Your task to perform on an android device: change the clock display to show seconds Image 0: 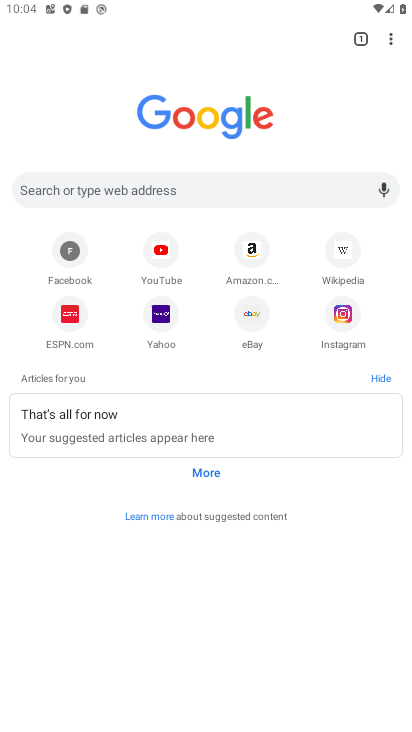
Step 0: press back button
Your task to perform on an android device: change the clock display to show seconds Image 1: 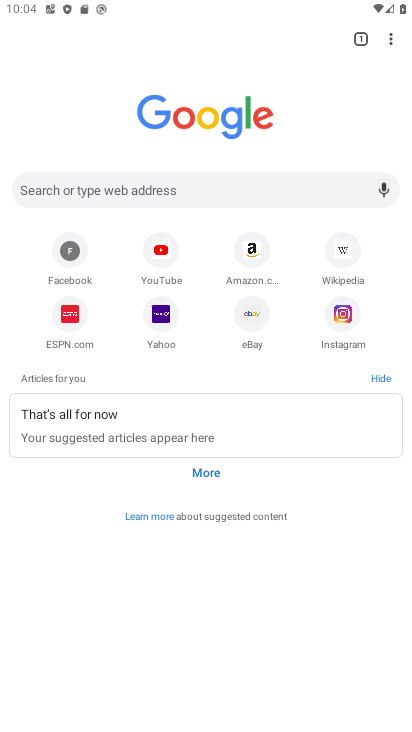
Step 1: press back button
Your task to perform on an android device: change the clock display to show seconds Image 2: 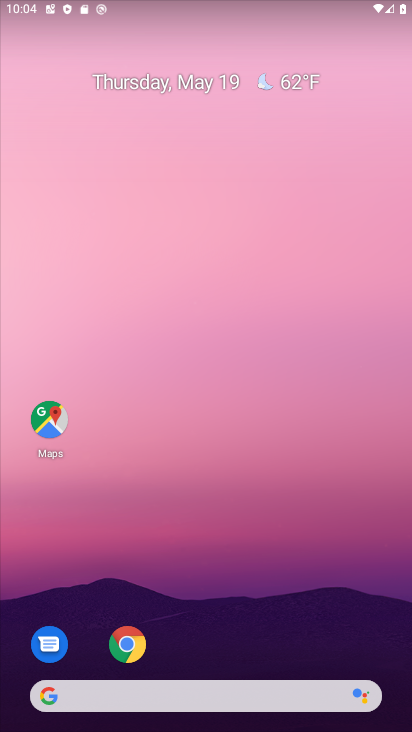
Step 2: drag from (238, 531) to (102, 194)
Your task to perform on an android device: change the clock display to show seconds Image 3: 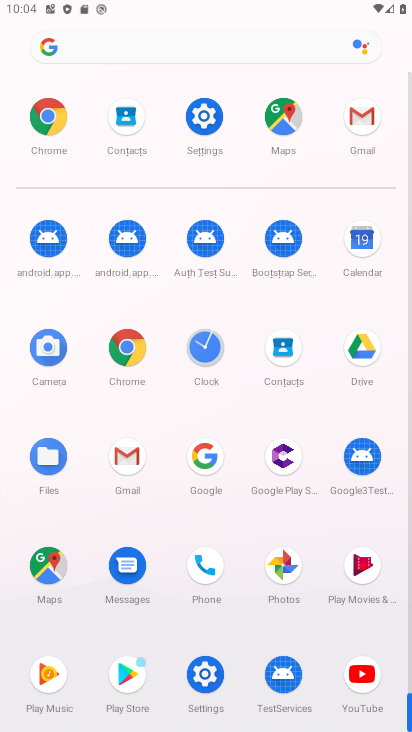
Step 3: click (207, 347)
Your task to perform on an android device: change the clock display to show seconds Image 4: 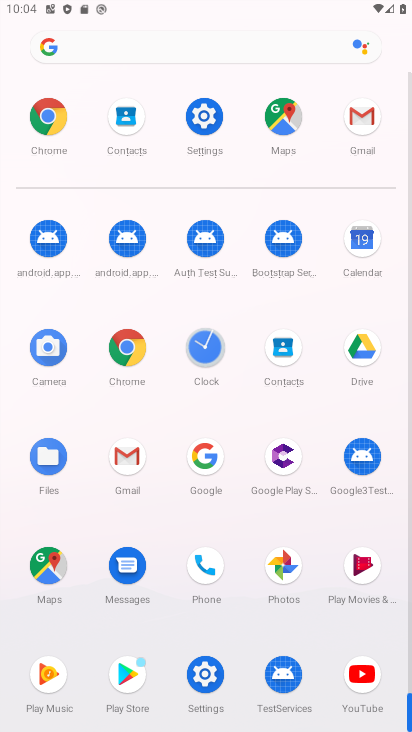
Step 4: click (207, 347)
Your task to perform on an android device: change the clock display to show seconds Image 5: 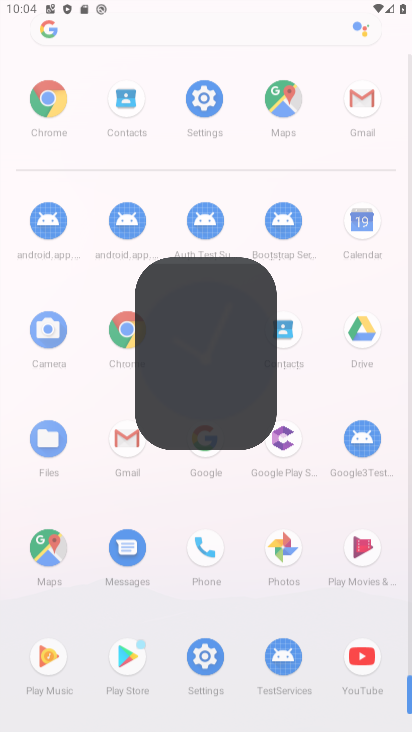
Step 5: click (207, 347)
Your task to perform on an android device: change the clock display to show seconds Image 6: 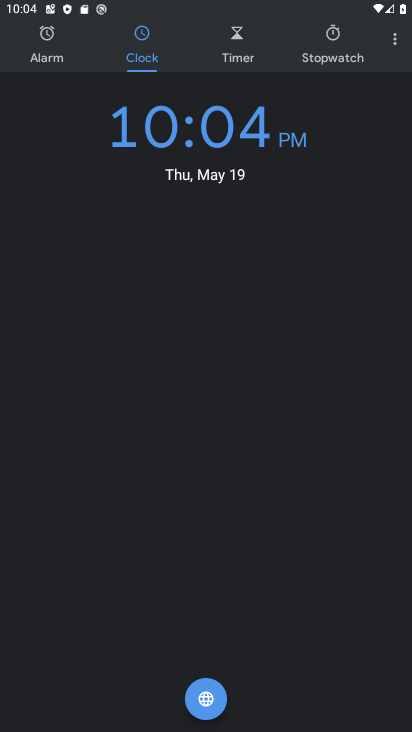
Step 6: click (398, 44)
Your task to perform on an android device: change the clock display to show seconds Image 7: 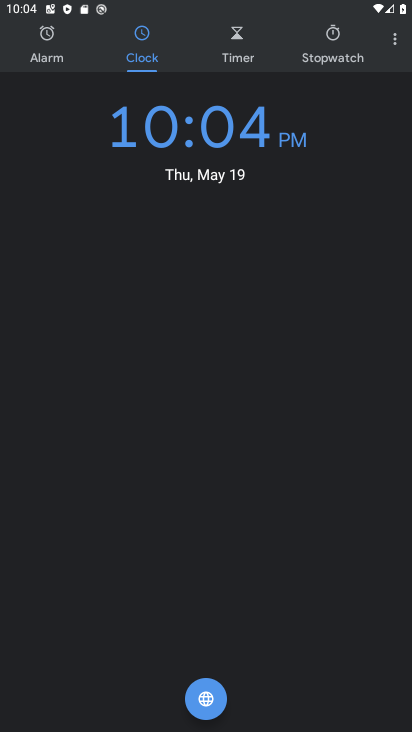
Step 7: click (390, 32)
Your task to perform on an android device: change the clock display to show seconds Image 8: 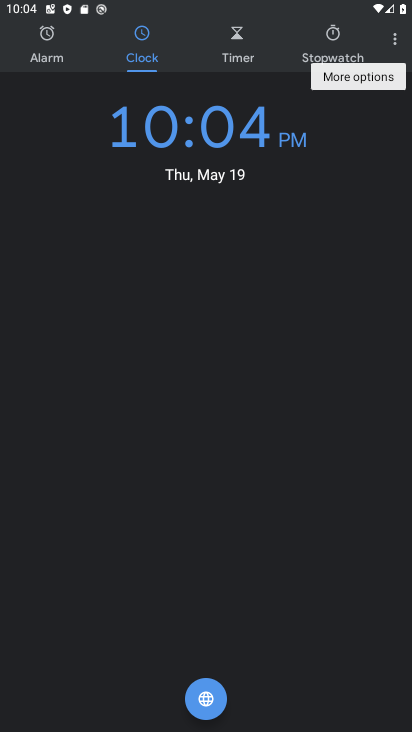
Step 8: click (387, 49)
Your task to perform on an android device: change the clock display to show seconds Image 9: 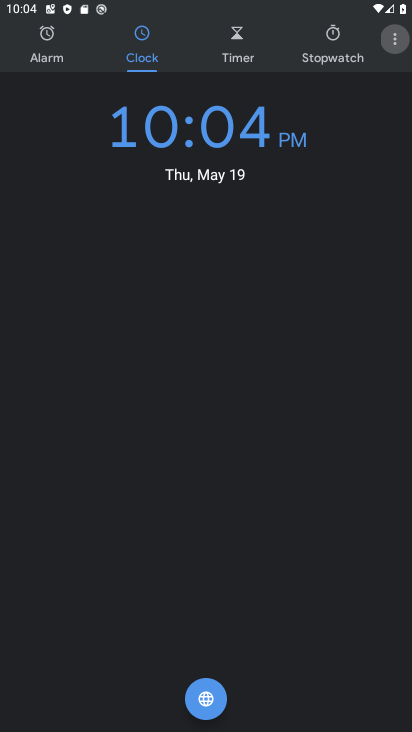
Step 9: click (388, 47)
Your task to perform on an android device: change the clock display to show seconds Image 10: 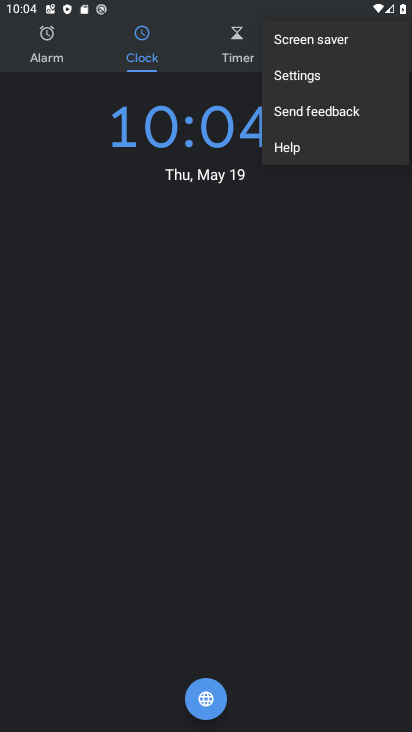
Step 10: click (312, 78)
Your task to perform on an android device: change the clock display to show seconds Image 11: 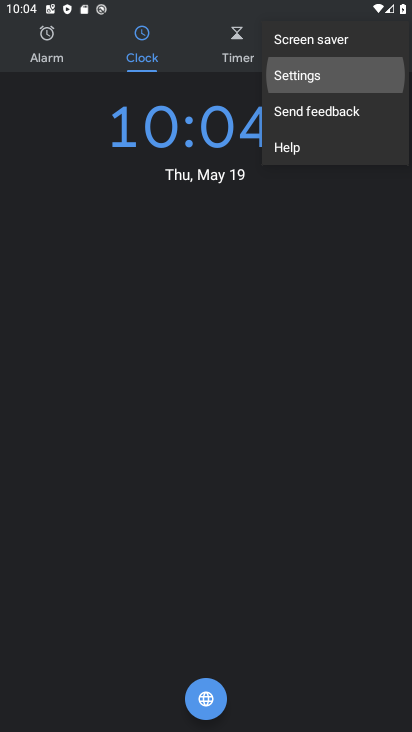
Step 11: click (312, 77)
Your task to perform on an android device: change the clock display to show seconds Image 12: 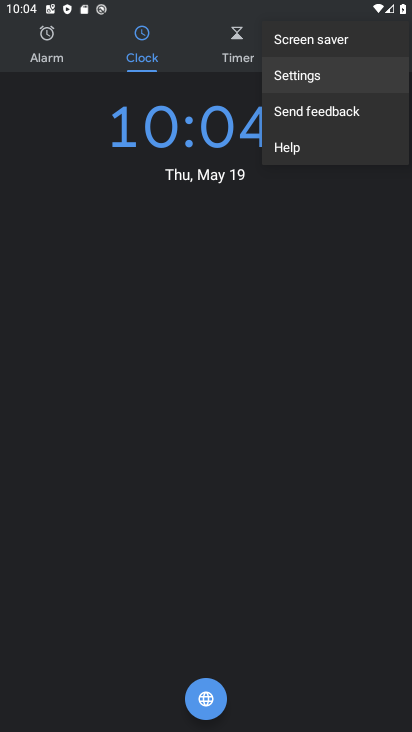
Step 12: click (312, 70)
Your task to perform on an android device: change the clock display to show seconds Image 13: 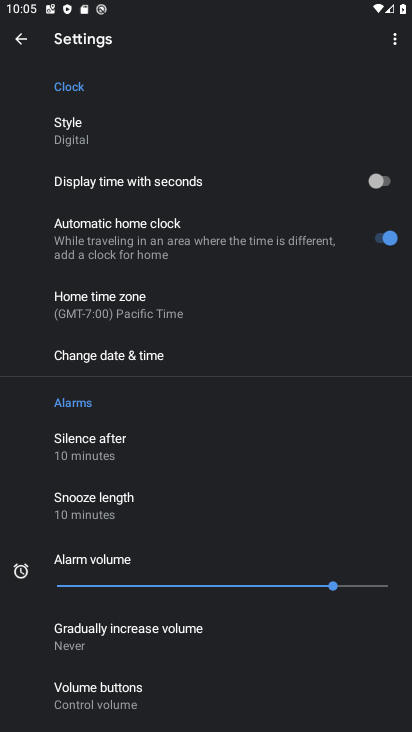
Step 13: click (375, 186)
Your task to perform on an android device: change the clock display to show seconds Image 14: 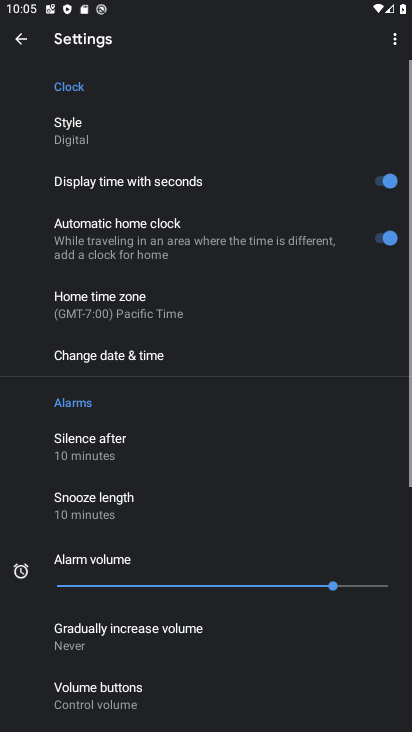
Step 14: task complete